Your task to perform on an android device: turn smart compose on in the gmail app Image 0: 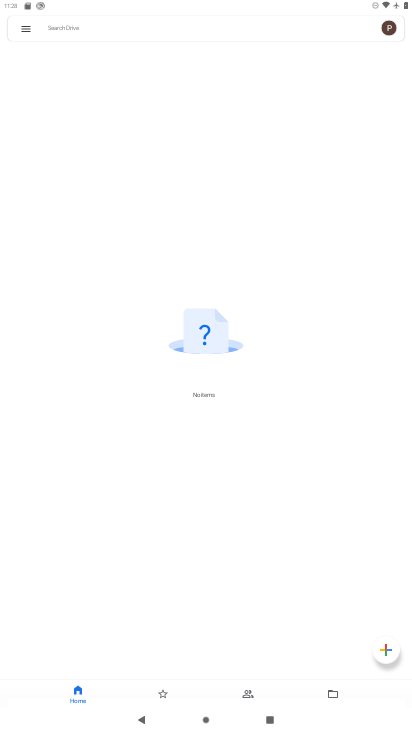
Step 0: press home button
Your task to perform on an android device: turn smart compose on in the gmail app Image 1: 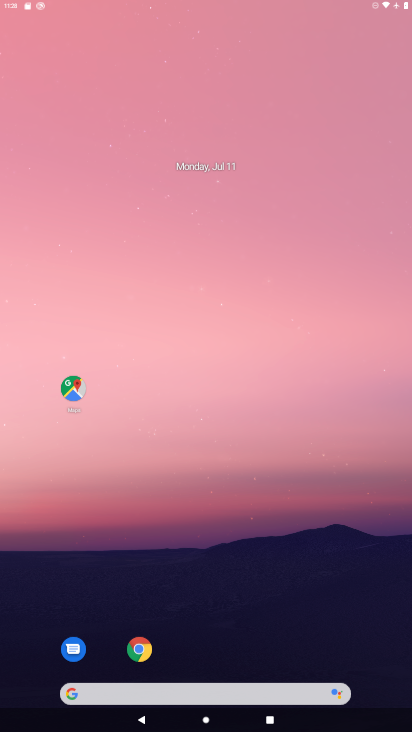
Step 1: press home button
Your task to perform on an android device: turn smart compose on in the gmail app Image 2: 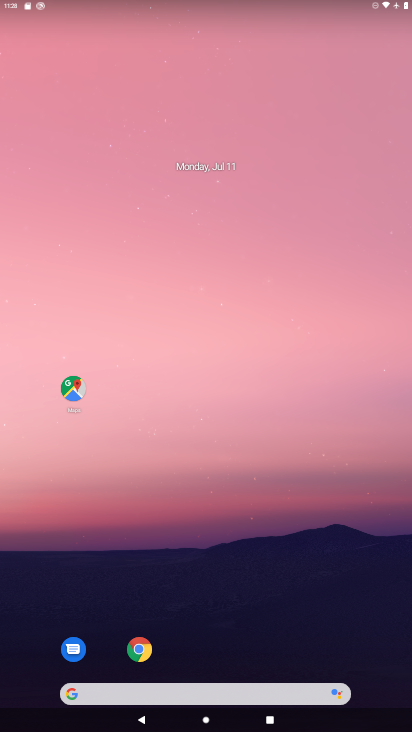
Step 2: drag from (346, 584) to (286, 55)
Your task to perform on an android device: turn smart compose on in the gmail app Image 3: 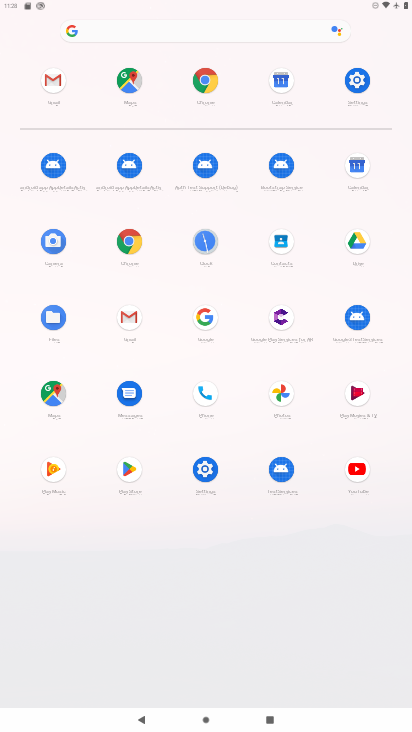
Step 3: click (56, 75)
Your task to perform on an android device: turn smart compose on in the gmail app Image 4: 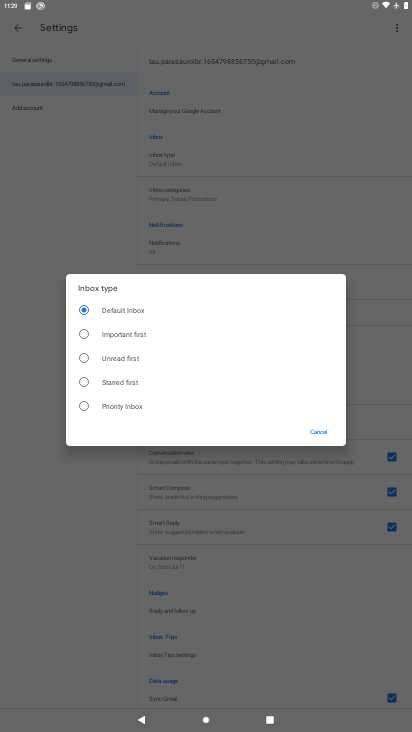
Step 4: click (325, 430)
Your task to perform on an android device: turn smart compose on in the gmail app Image 5: 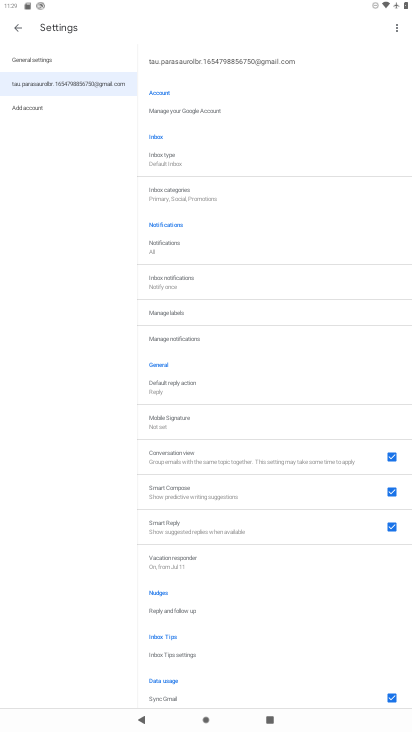
Step 5: task complete